Your task to perform on an android device: Search for Mexican restaurants on Maps Image 0: 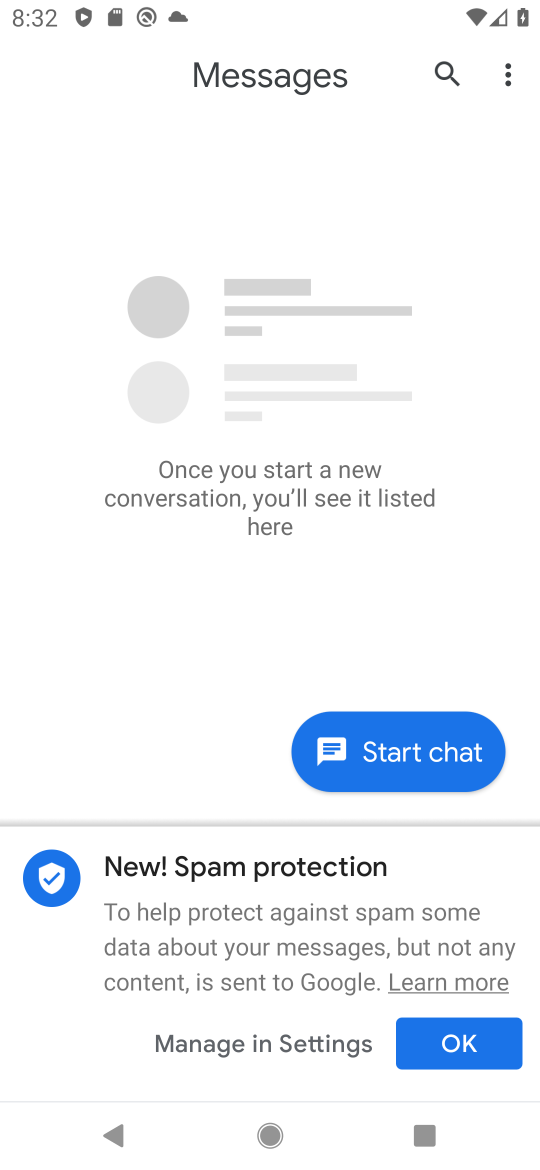
Step 0: press home button
Your task to perform on an android device: Search for Mexican restaurants on Maps Image 1: 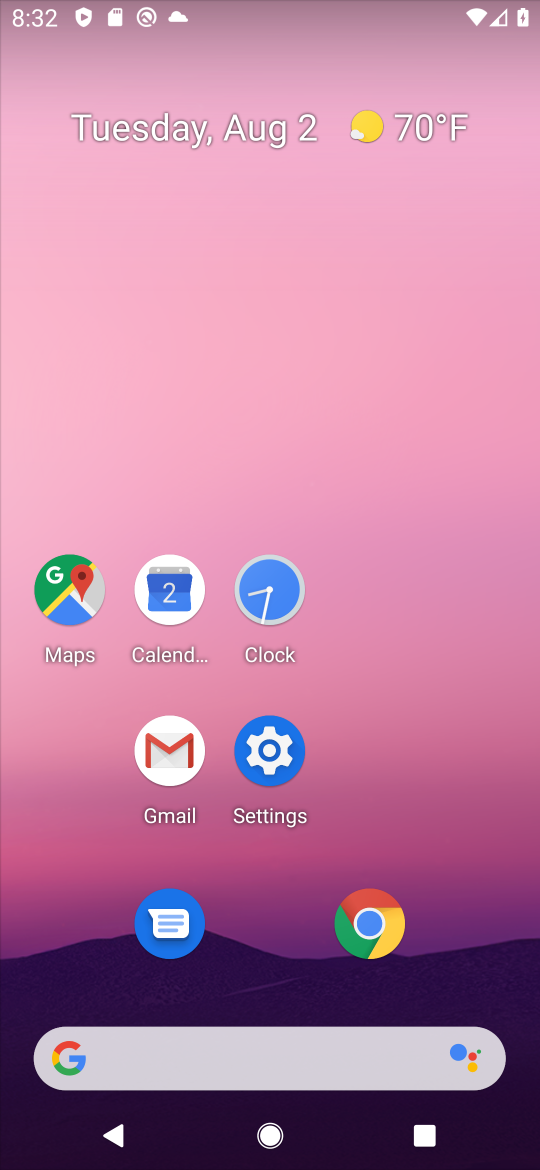
Step 1: click (49, 578)
Your task to perform on an android device: Search for Mexican restaurants on Maps Image 2: 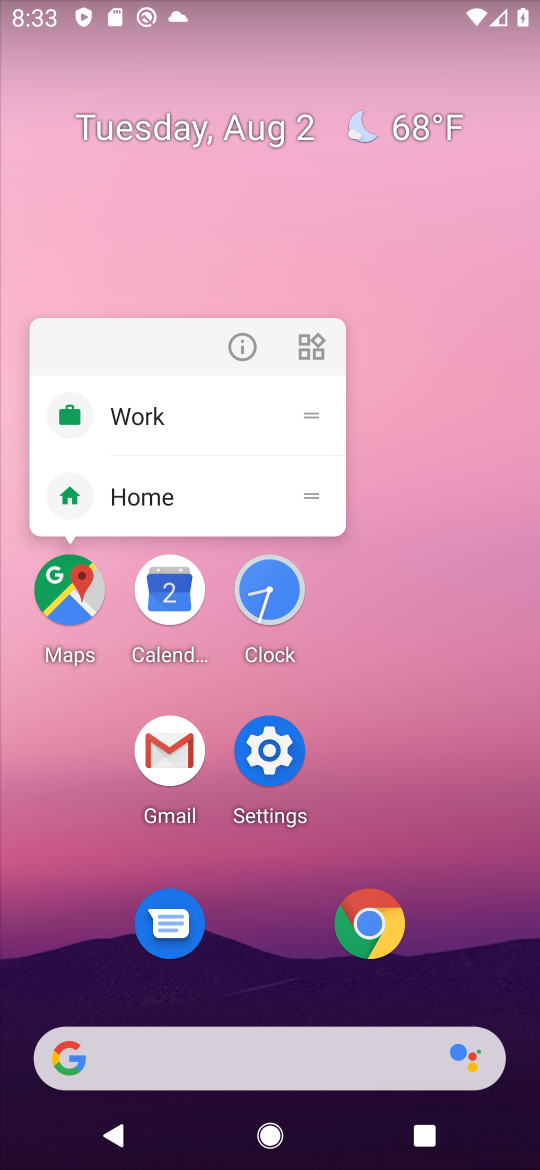
Step 2: click (49, 581)
Your task to perform on an android device: Search for Mexican restaurants on Maps Image 3: 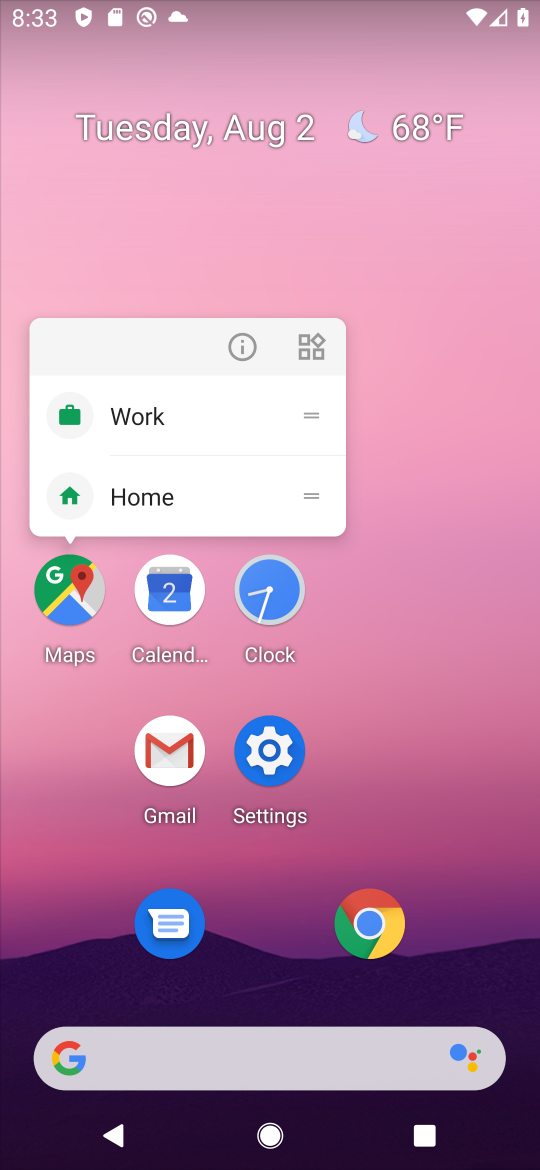
Step 3: click (51, 590)
Your task to perform on an android device: Search for Mexican restaurants on Maps Image 4: 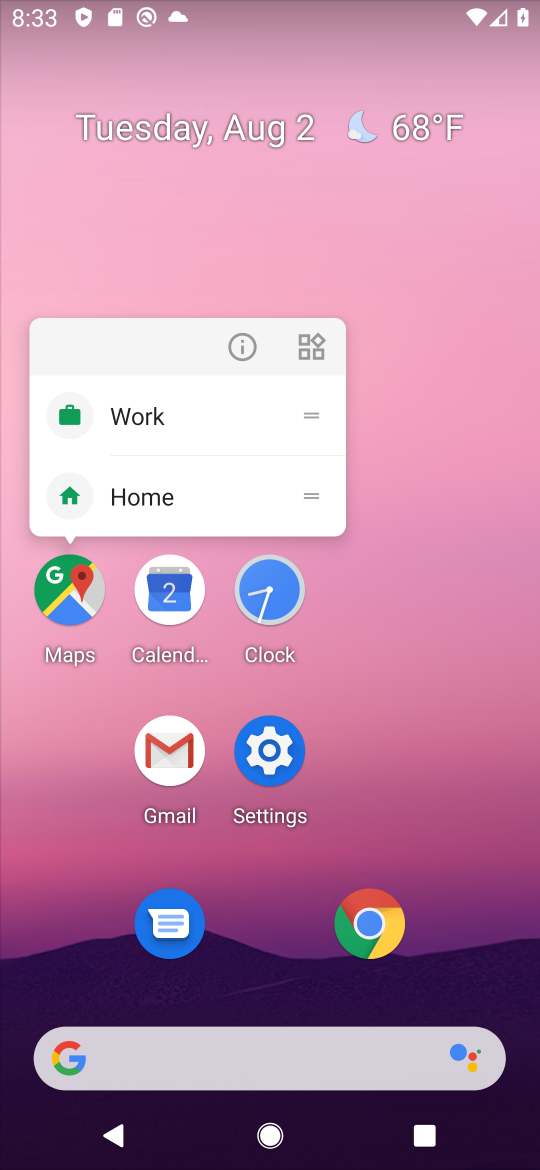
Step 4: click (55, 590)
Your task to perform on an android device: Search for Mexican restaurants on Maps Image 5: 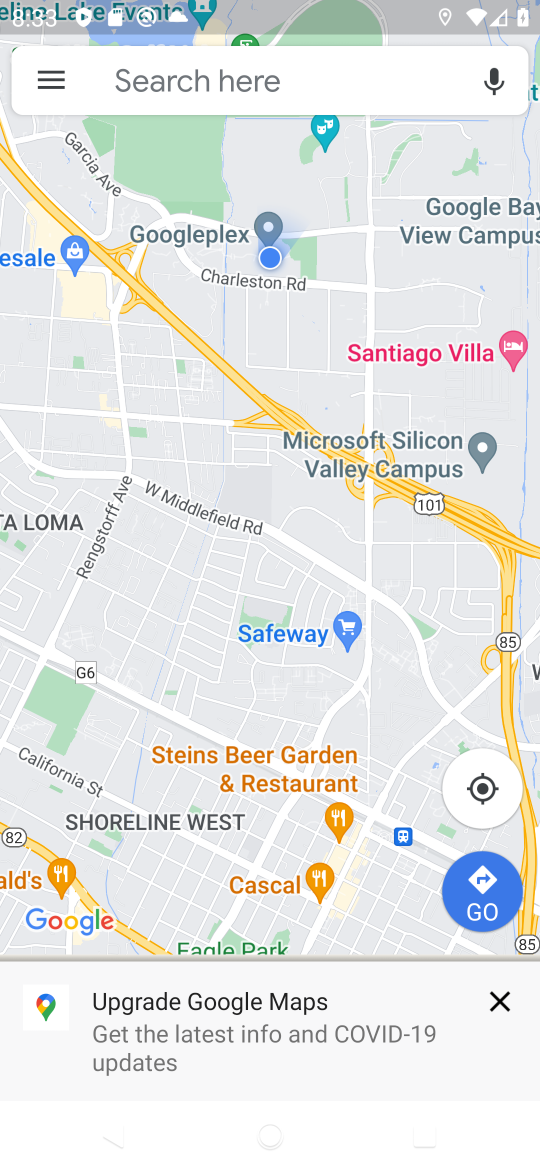
Step 5: click (301, 76)
Your task to perform on an android device: Search for Mexican restaurants on Maps Image 6: 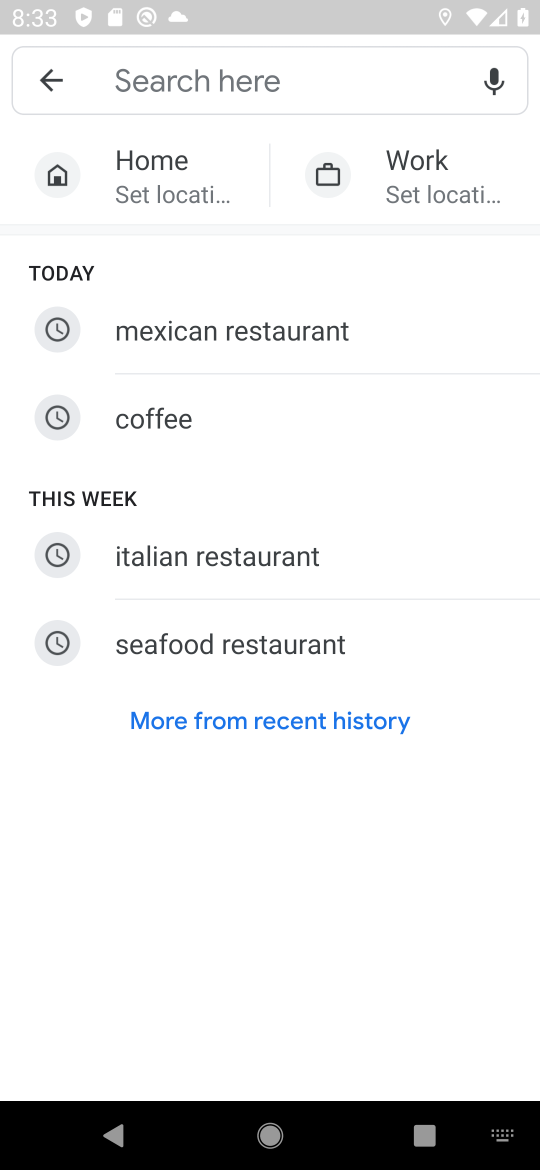
Step 6: type "Mexican restaurants"
Your task to perform on an android device: Search for Mexican restaurants on Maps Image 7: 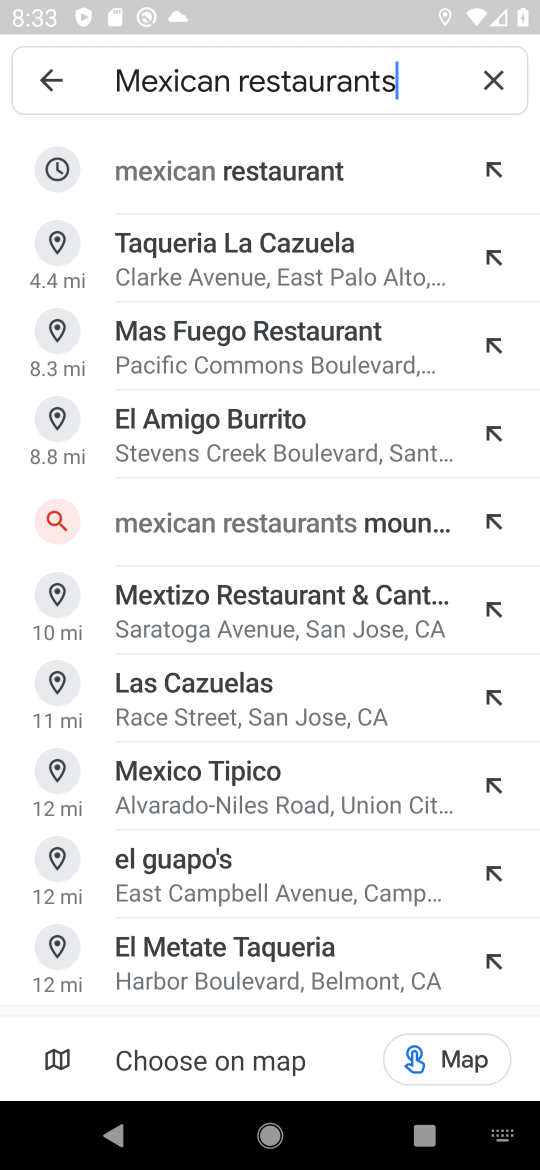
Step 7: click (276, 164)
Your task to perform on an android device: Search for Mexican restaurants on Maps Image 8: 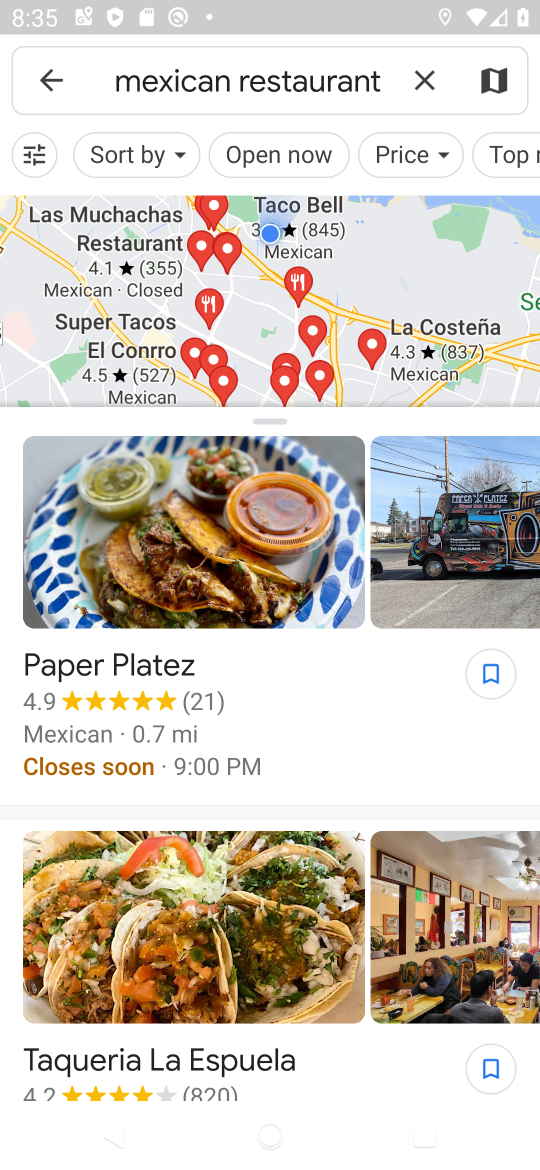
Step 8: task complete